Your task to perform on an android device: Go to CNN.com Image 0: 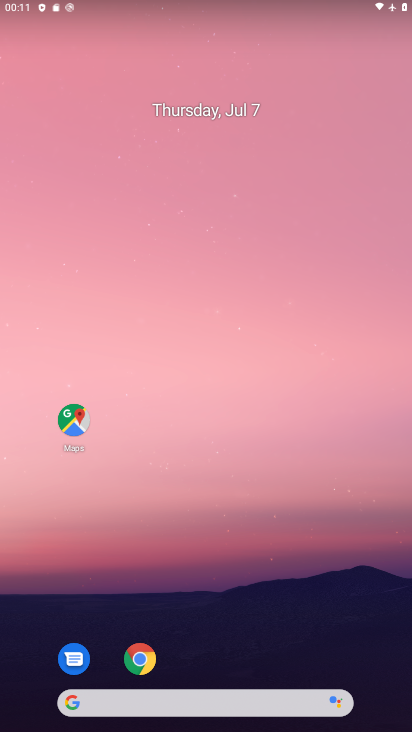
Step 0: drag from (216, 676) to (187, 345)
Your task to perform on an android device: Go to CNN.com Image 1: 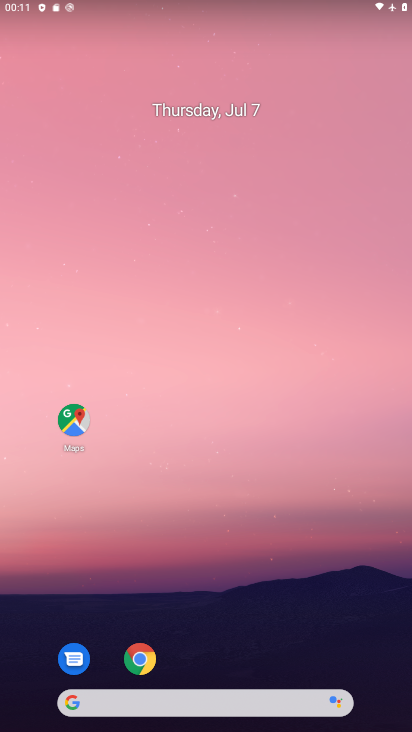
Step 1: drag from (259, 540) to (213, 313)
Your task to perform on an android device: Go to CNN.com Image 2: 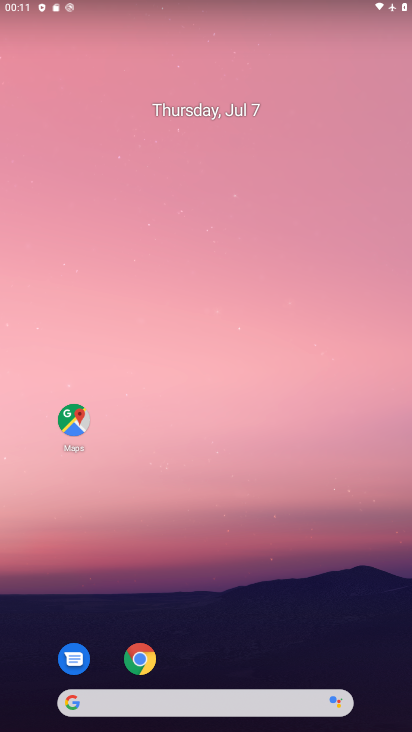
Step 2: drag from (231, 394) to (236, 331)
Your task to perform on an android device: Go to CNN.com Image 3: 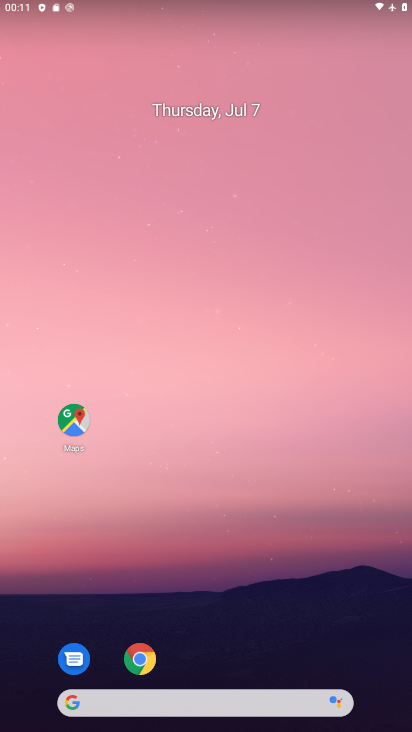
Step 3: drag from (276, 694) to (253, 184)
Your task to perform on an android device: Go to CNN.com Image 4: 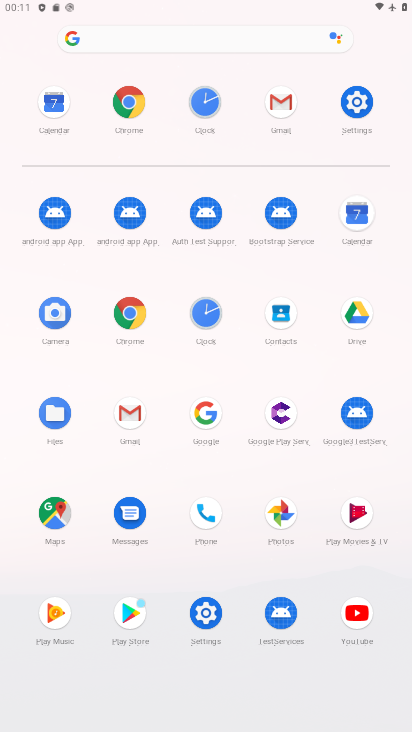
Step 4: click (136, 103)
Your task to perform on an android device: Go to CNN.com Image 5: 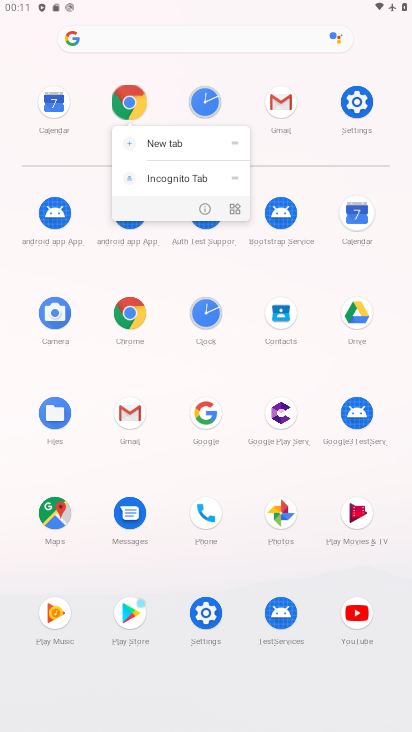
Step 5: click (135, 103)
Your task to perform on an android device: Go to CNN.com Image 6: 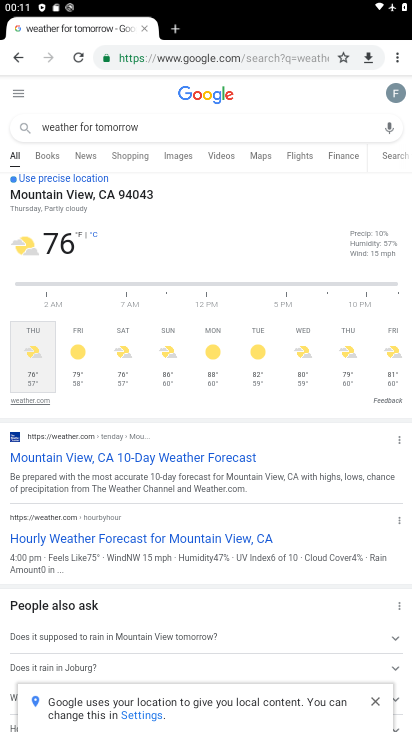
Step 6: click (9, 61)
Your task to perform on an android device: Go to CNN.com Image 7: 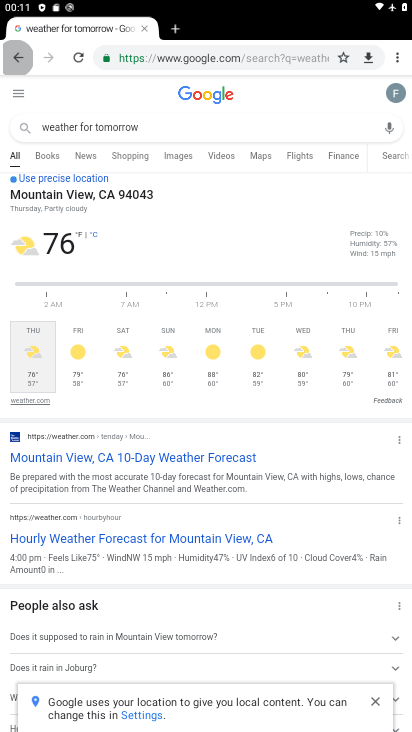
Step 7: click (15, 63)
Your task to perform on an android device: Go to CNN.com Image 8: 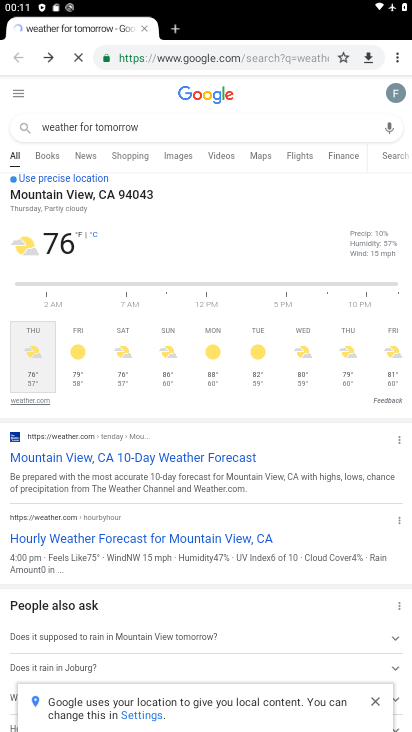
Step 8: click (16, 66)
Your task to perform on an android device: Go to CNN.com Image 9: 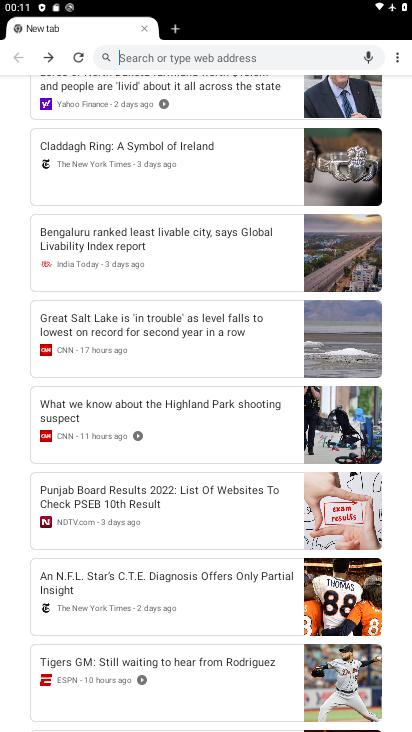
Step 9: click (134, 54)
Your task to perform on an android device: Go to CNN.com Image 10: 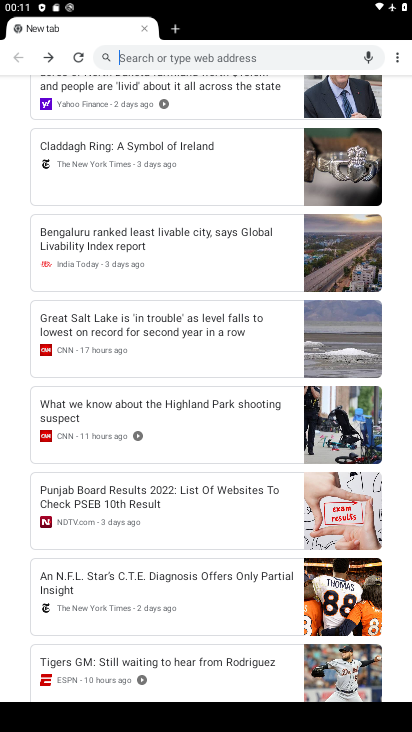
Step 10: click (59, 348)
Your task to perform on an android device: Go to CNN.com Image 11: 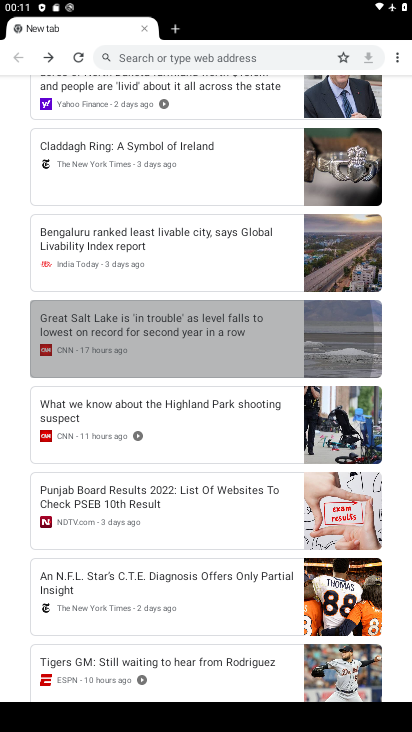
Step 11: click (59, 346)
Your task to perform on an android device: Go to CNN.com Image 12: 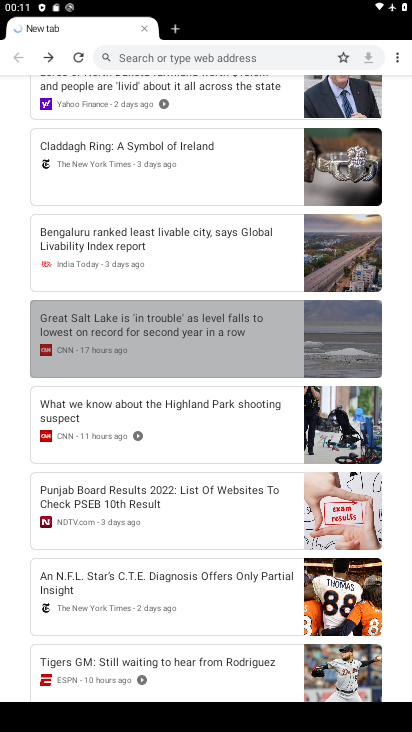
Step 12: click (59, 343)
Your task to perform on an android device: Go to CNN.com Image 13: 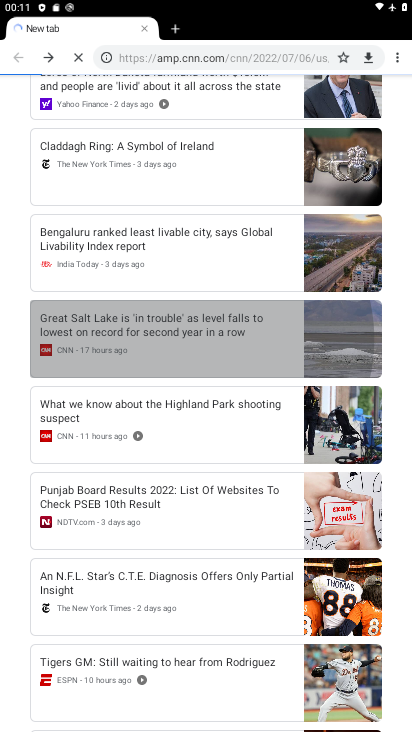
Step 13: click (59, 343)
Your task to perform on an android device: Go to CNN.com Image 14: 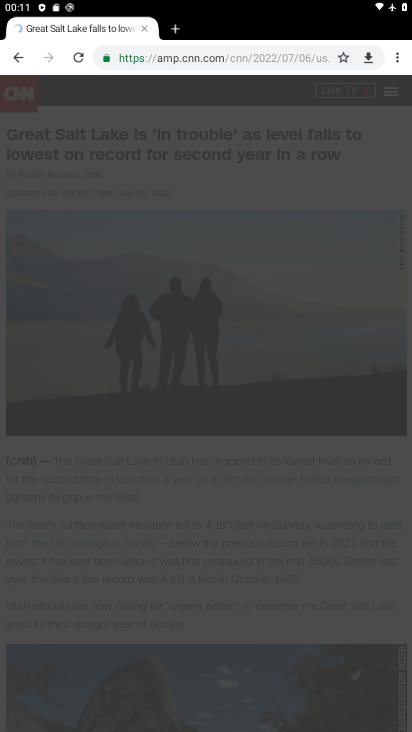
Step 14: task complete